Your task to perform on an android device: Search for the best-rated coffee table on Crate & Barrel Image 0: 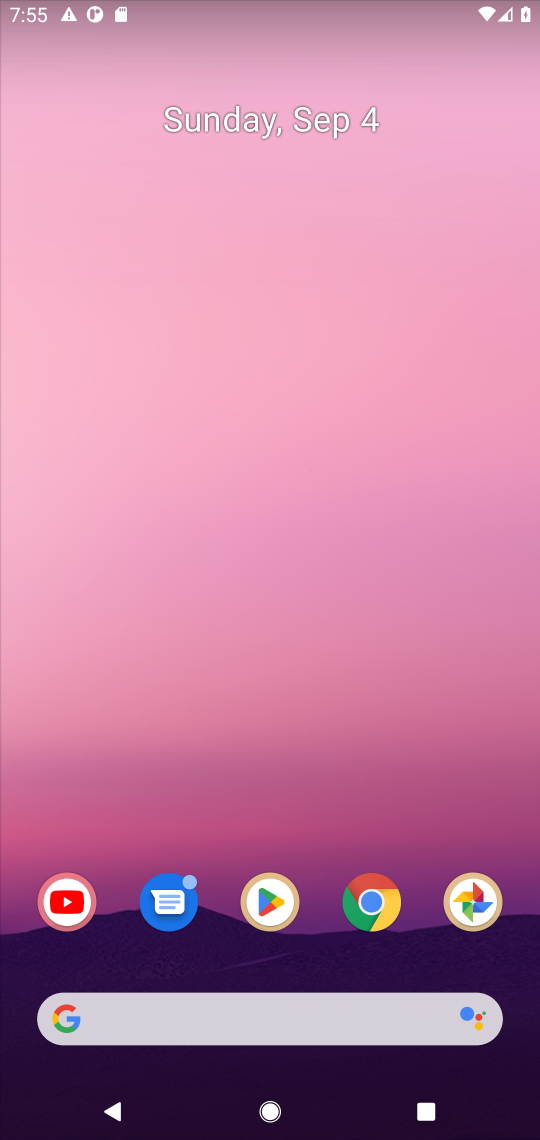
Step 0: click (256, 930)
Your task to perform on an android device: Search for the best-rated coffee table on Crate & Barrel Image 1: 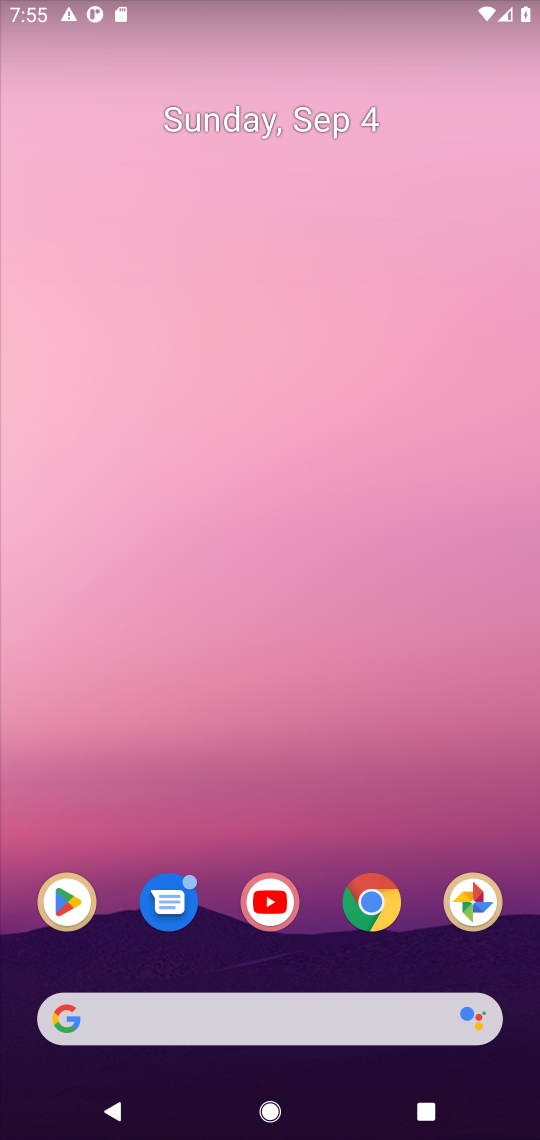
Step 1: click (143, 928)
Your task to perform on an android device: Search for the best-rated coffee table on Crate & Barrel Image 2: 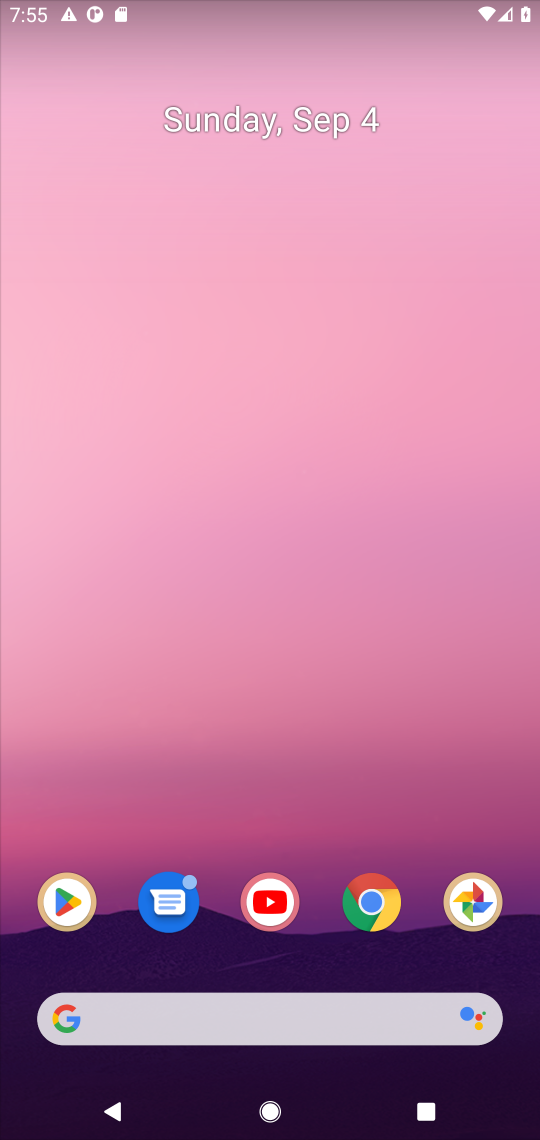
Step 2: click (164, 912)
Your task to perform on an android device: Search for the best-rated coffee table on Crate & Barrel Image 3: 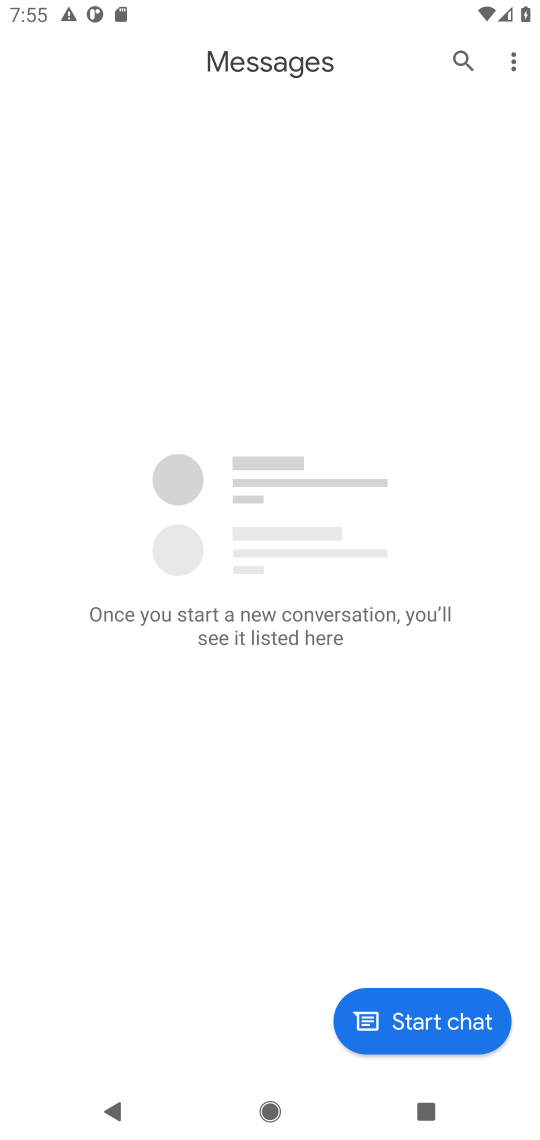
Step 3: task complete